Your task to perform on an android device: visit the assistant section in the google photos Image 0: 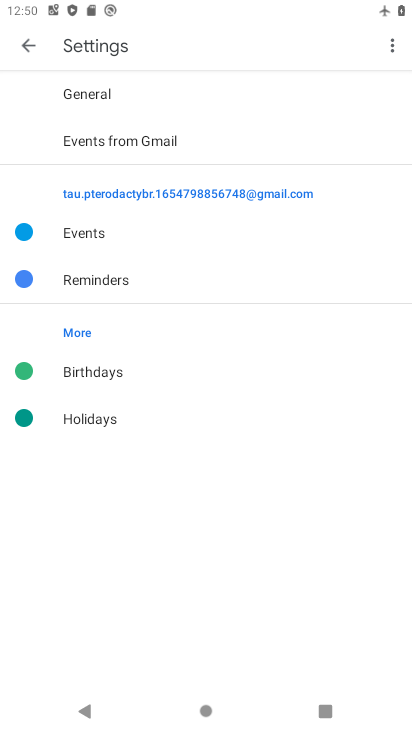
Step 0: press home button
Your task to perform on an android device: visit the assistant section in the google photos Image 1: 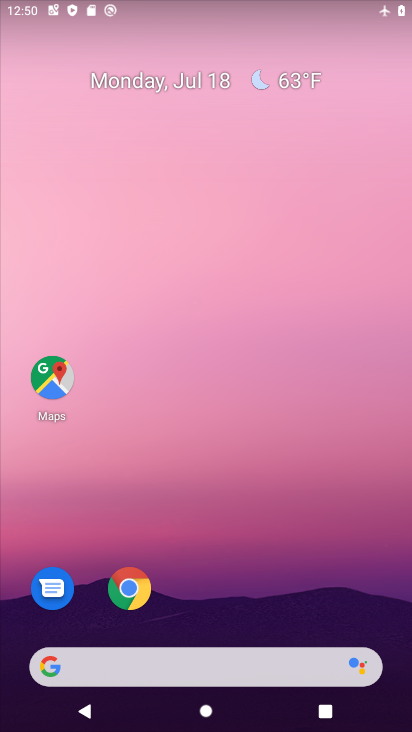
Step 1: drag from (225, 688) to (200, 285)
Your task to perform on an android device: visit the assistant section in the google photos Image 2: 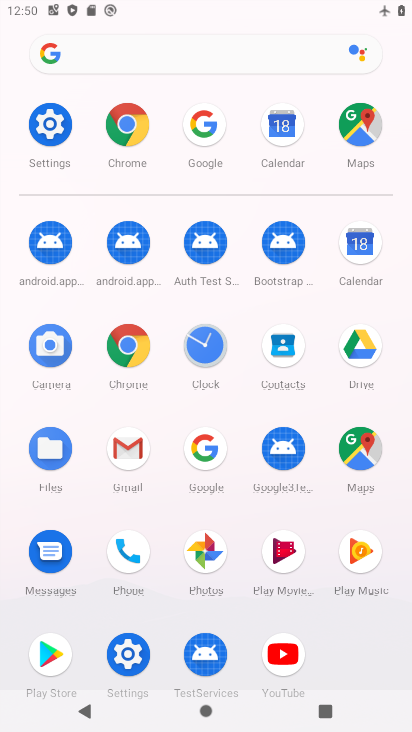
Step 2: click (210, 567)
Your task to perform on an android device: visit the assistant section in the google photos Image 3: 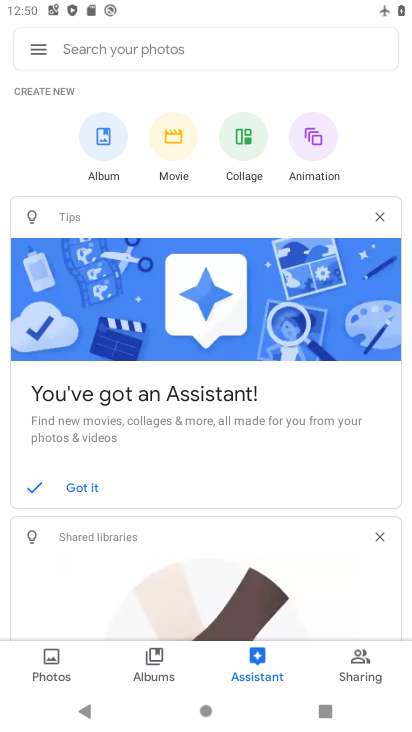
Step 3: task complete